Your task to perform on an android device: turn on the 12-hour format for clock Image 0: 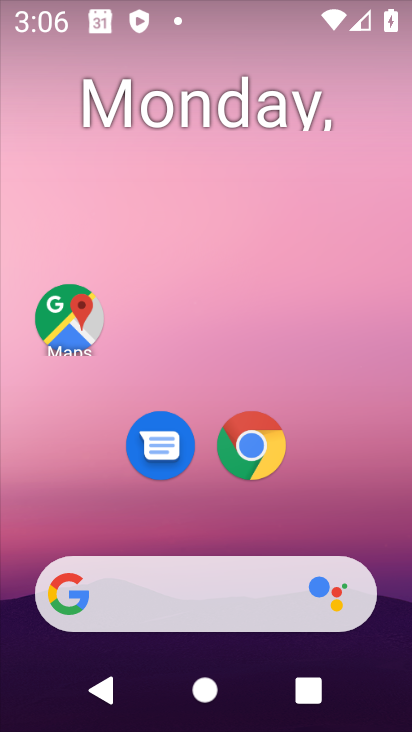
Step 0: drag from (274, 537) to (250, 56)
Your task to perform on an android device: turn on the 12-hour format for clock Image 1: 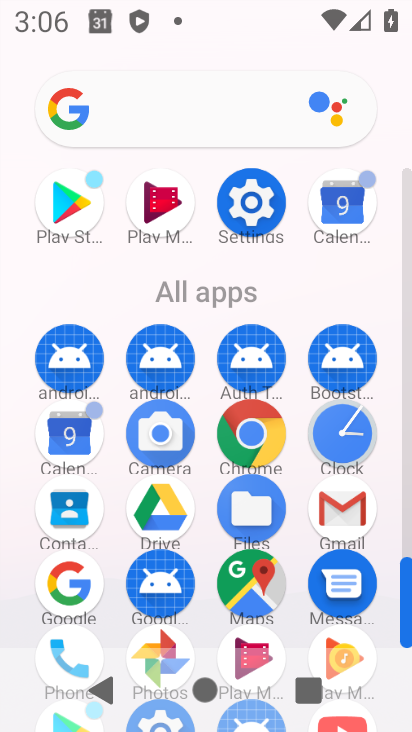
Step 1: click (347, 445)
Your task to perform on an android device: turn on the 12-hour format for clock Image 2: 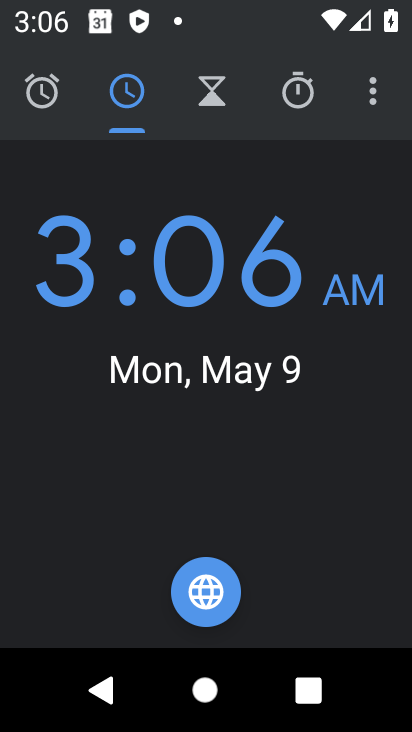
Step 2: click (362, 95)
Your task to perform on an android device: turn on the 12-hour format for clock Image 3: 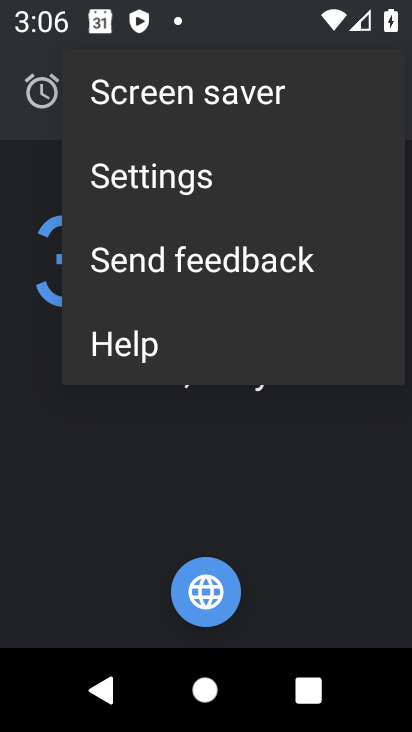
Step 3: click (152, 193)
Your task to perform on an android device: turn on the 12-hour format for clock Image 4: 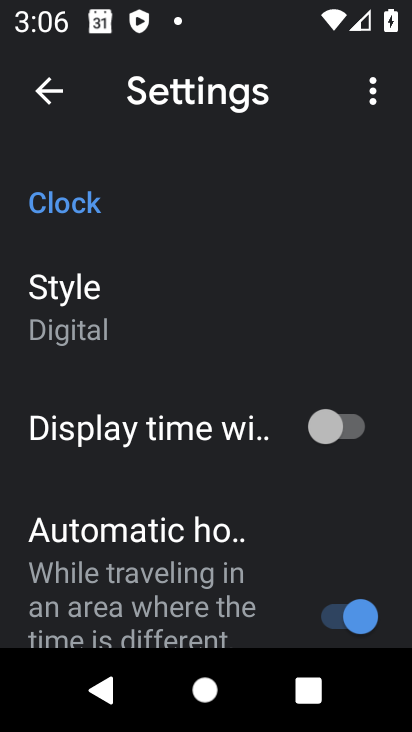
Step 4: drag from (169, 591) to (125, 373)
Your task to perform on an android device: turn on the 12-hour format for clock Image 5: 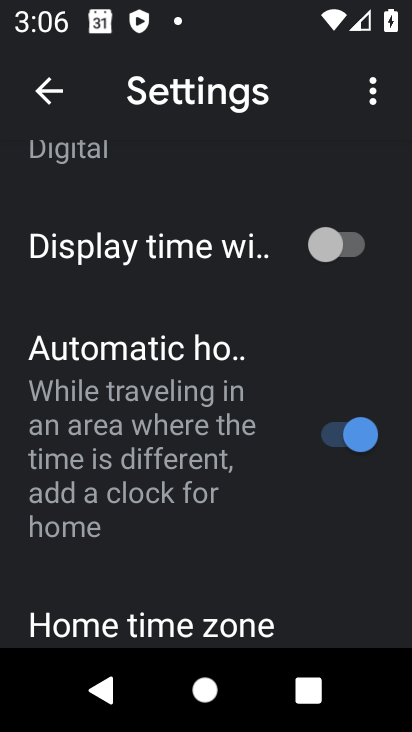
Step 5: drag from (172, 589) to (153, 354)
Your task to perform on an android device: turn on the 12-hour format for clock Image 6: 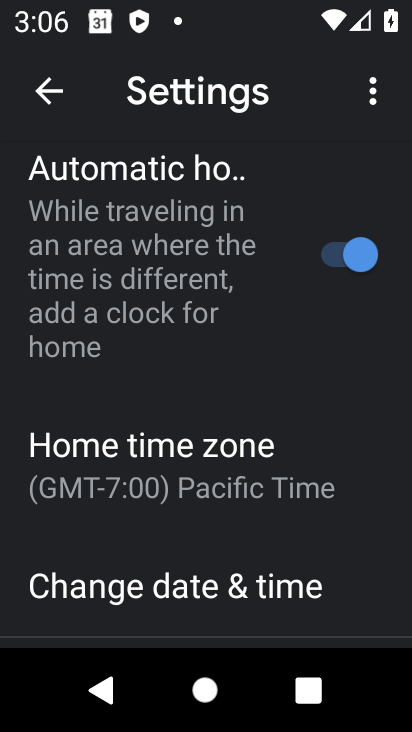
Step 6: drag from (202, 600) to (174, 368)
Your task to perform on an android device: turn on the 12-hour format for clock Image 7: 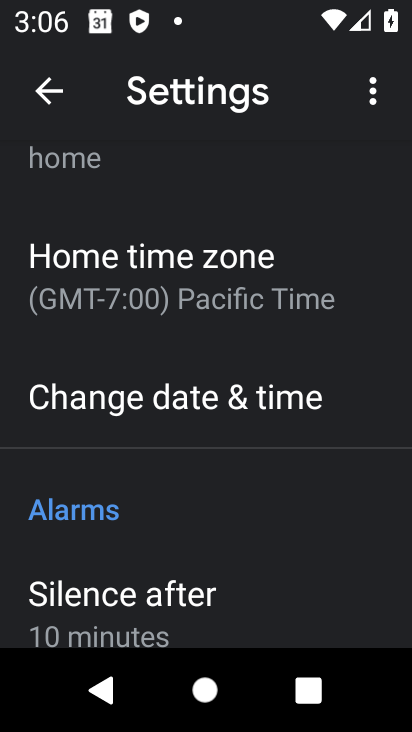
Step 7: click (167, 406)
Your task to perform on an android device: turn on the 12-hour format for clock Image 8: 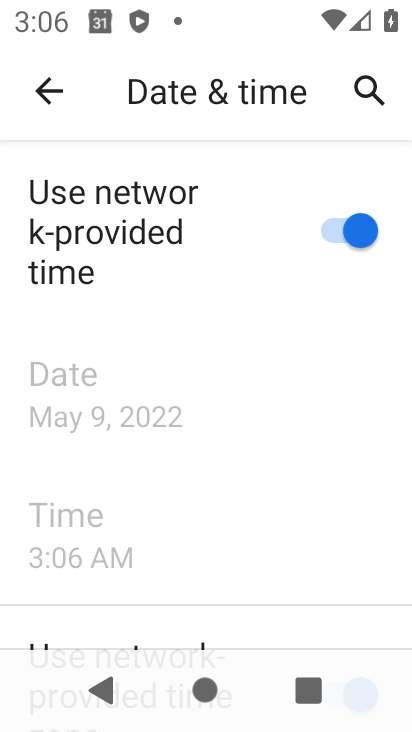
Step 8: task complete